Your task to perform on an android device: How much does a 3 bedroom apartment rent for in Chicago? Image 0: 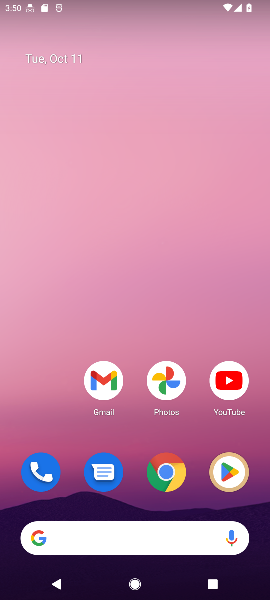
Step 0: click (169, 477)
Your task to perform on an android device: How much does a 3 bedroom apartment rent for in Chicago? Image 1: 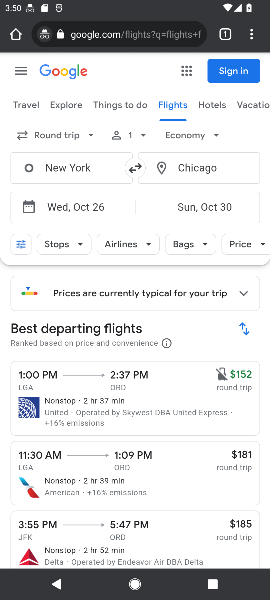
Step 1: click (90, 41)
Your task to perform on an android device: How much does a 3 bedroom apartment rent for in Chicago? Image 2: 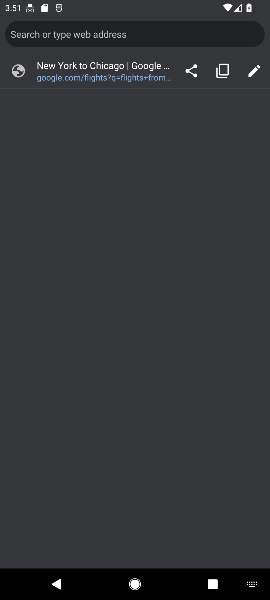
Step 2: type "How much does a 3 bedroom apartment rent for in Chicago?"
Your task to perform on an android device: How much does a 3 bedroom apartment rent for in Chicago? Image 3: 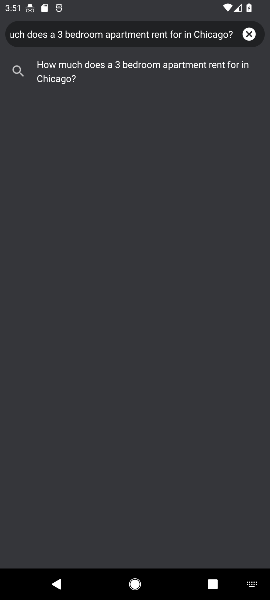
Step 3: click (66, 78)
Your task to perform on an android device: How much does a 3 bedroom apartment rent for in Chicago? Image 4: 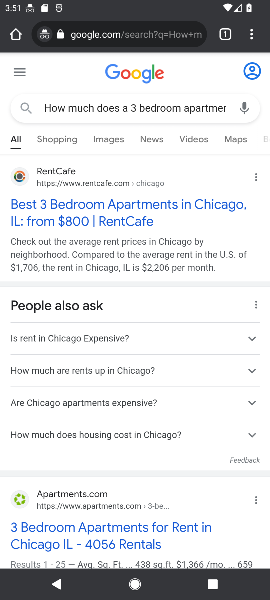
Step 4: click (60, 212)
Your task to perform on an android device: How much does a 3 bedroom apartment rent for in Chicago? Image 5: 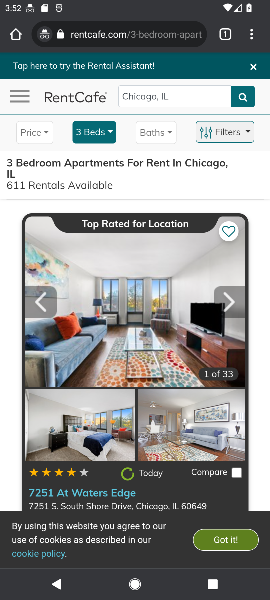
Step 5: click (195, 360)
Your task to perform on an android device: How much does a 3 bedroom apartment rent for in Chicago? Image 6: 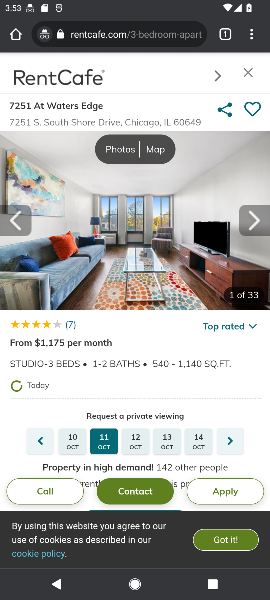
Step 6: task complete